Your task to perform on an android device: turn on translation in the chrome app Image 0: 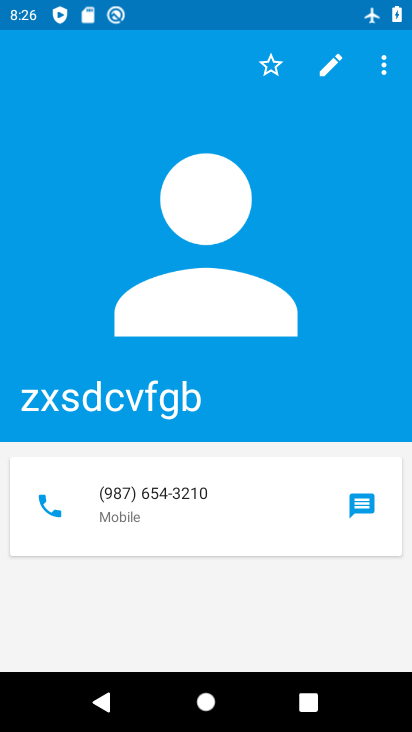
Step 0: press home button
Your task to perform on an android device: turn on translation in the chrome app Image 1: 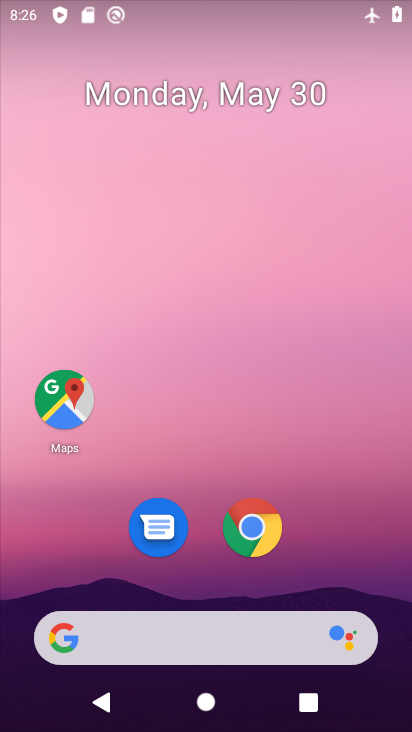
Step 1: click (245, 528)
Your task to perform on an android device: turn on translation in the chrome app Image 2: 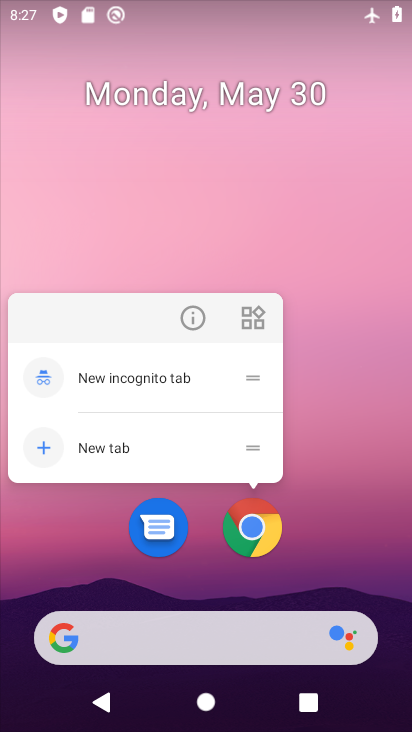
Step 2: click (249, 534)
Your task to perform on an android device: turn on translation in the chrome app Image 3: 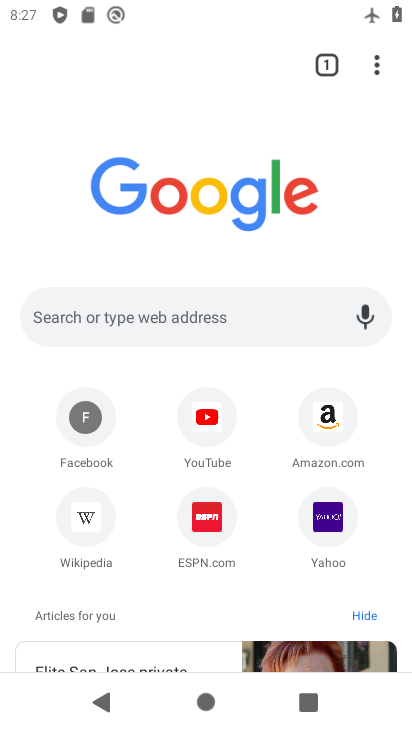
Step 3: click (381, 64)
Your task to perform on an android device: turn on translation in the chrome app Image 4: 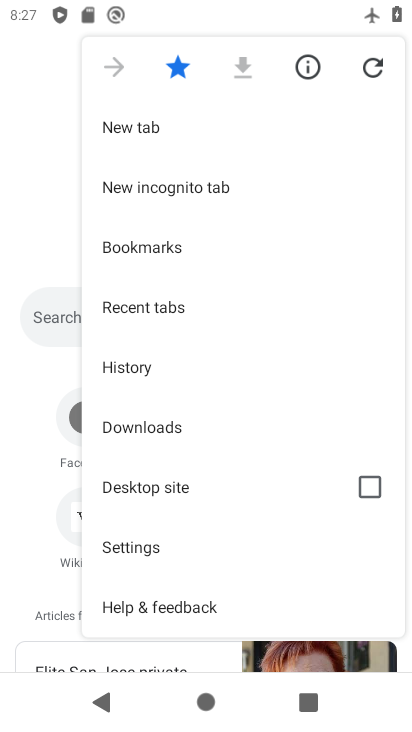
Step 4: click (148, 537)
Your task to perform on an android device: turn on translation in the chrome app Image 5: 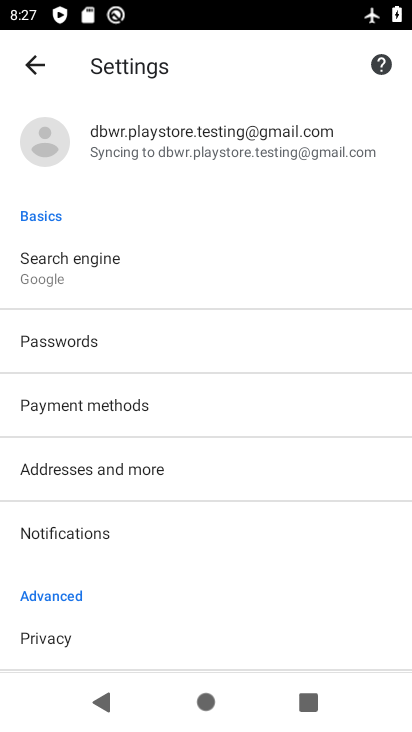
Step 5: drag from (137, 602) to (212, 242)
Your task to perform on an android device: turn on translation in the chrome app Image 6: 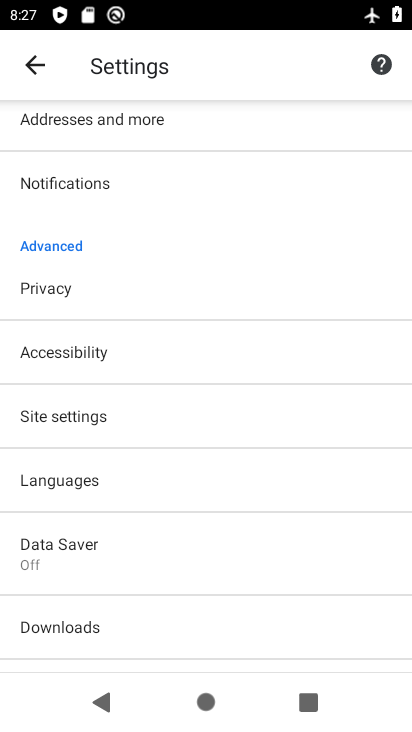
Step 6: click (128, 472)
Your task to perform on an android device: turn on translation in the chrome app Image 7: 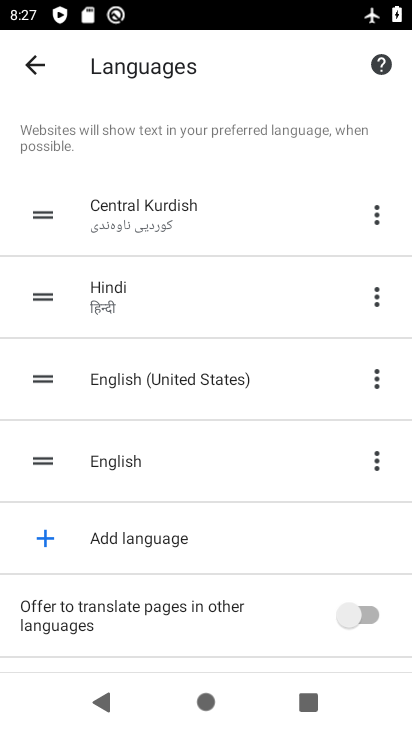
Step 7: click (356, 614)
Your task to perform on an android device: turn on translation in the chrome app Image 8: 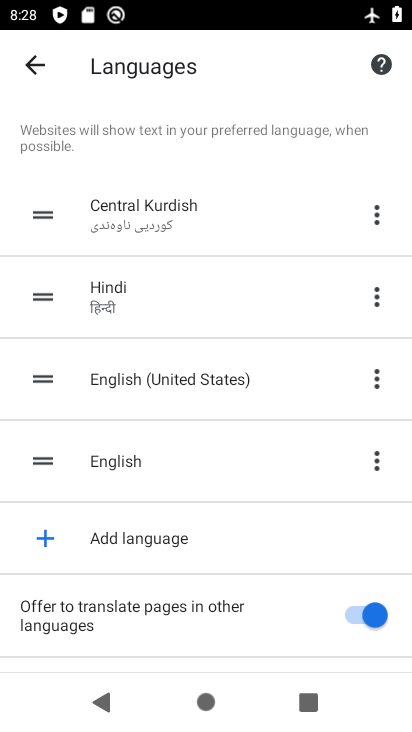
Step 8: task complete